Your task to perform on an android device: Search for pizza restaurants on Maps Image 0: 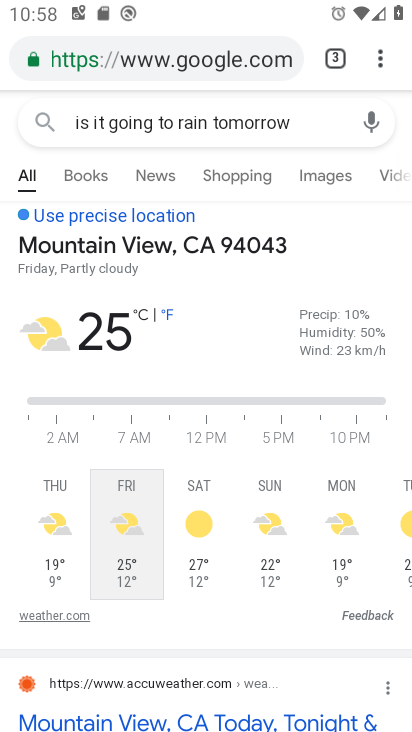
Step 0: press home button
Your task to perform on an android device: Search for pizza restaurants on Maps Image 1: 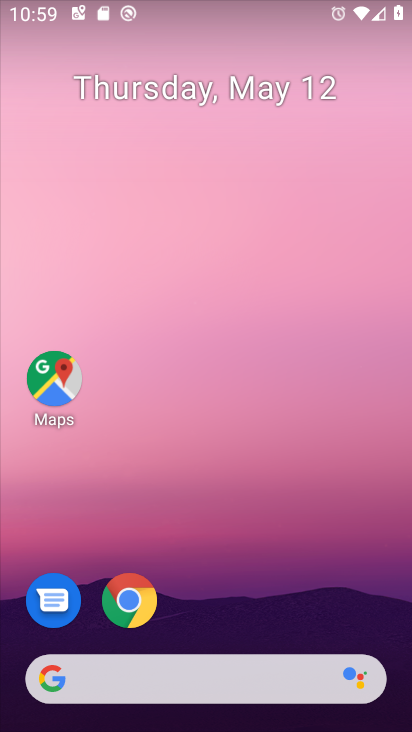
Step 1: click (61, 387)
Your task to perform on an android device: Search for pizza restaurants on Maps Image 2: 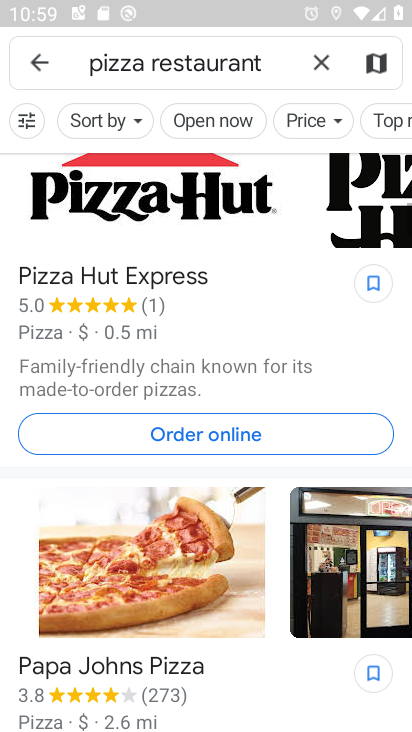
Step 2: task complete